Your task to perform on an android device: uninstall "LiveIn - Share Your Moment" Image 0: 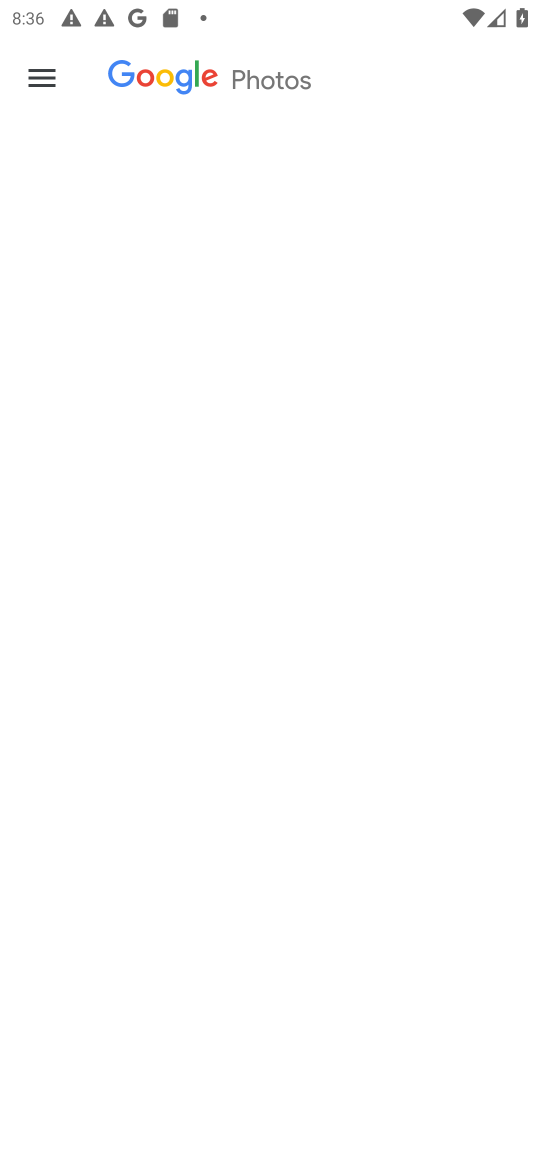
Step 0: press home button
Your task to perform on an android device: uninstall "LiveIn - Share Your Moment" Image 1: 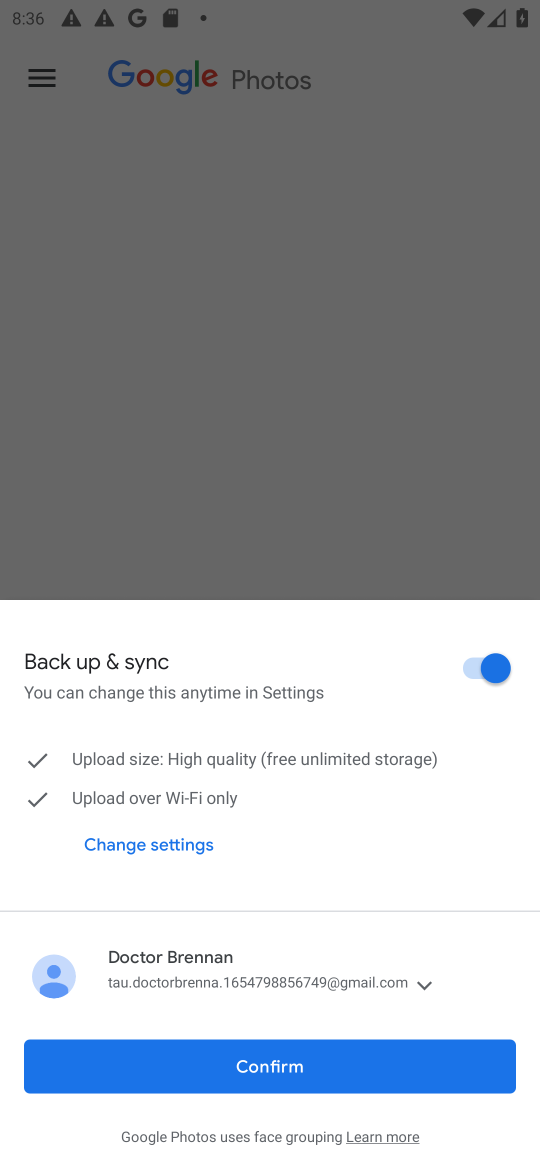
Step 1: press home button
Your task to perform on an android device: uninstall "LiveIn - Share Your Moment" Image 2: 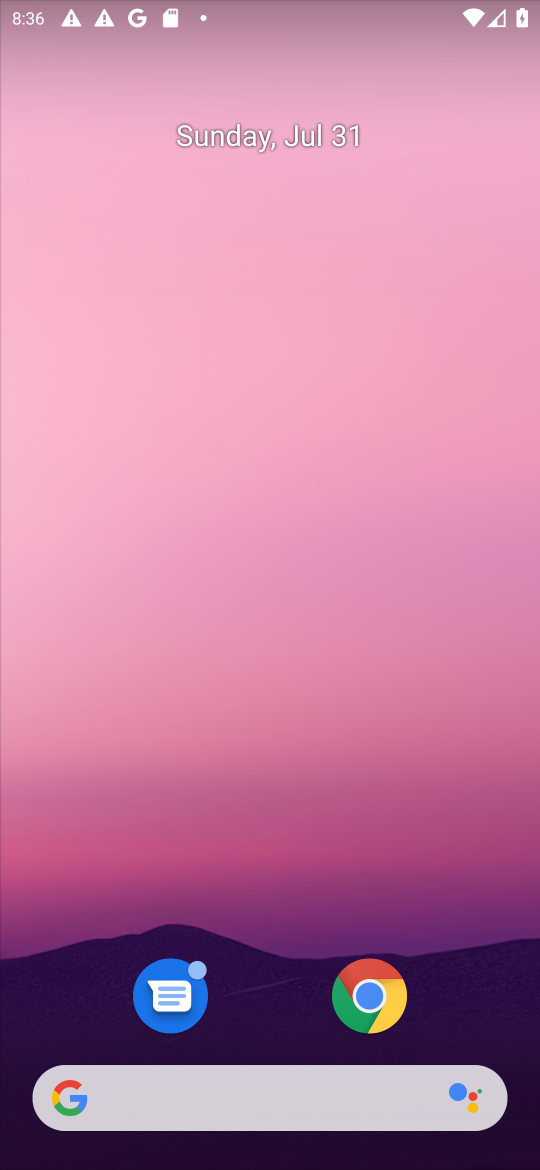
Step 2: drag from (465, 1000) to (415, 89)
Your task to perform on an android device: uninstall "LiveIn - Share Your Moment" Image 3: 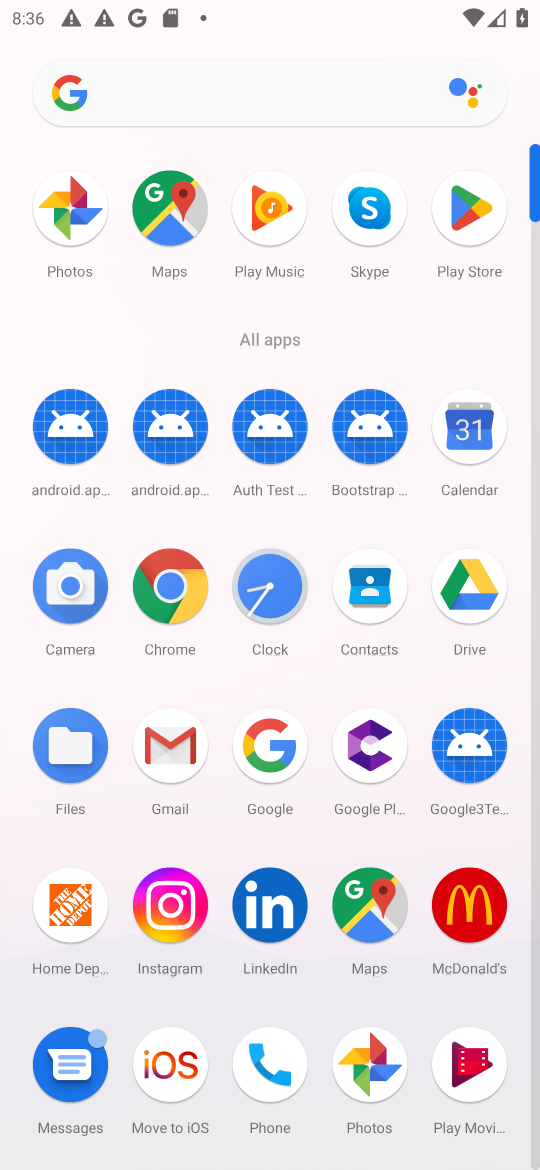
Step 3: click (477, 210)
Your task to perform on an android device: uninstall "LiveIn - Share Your Moment" Image 4: 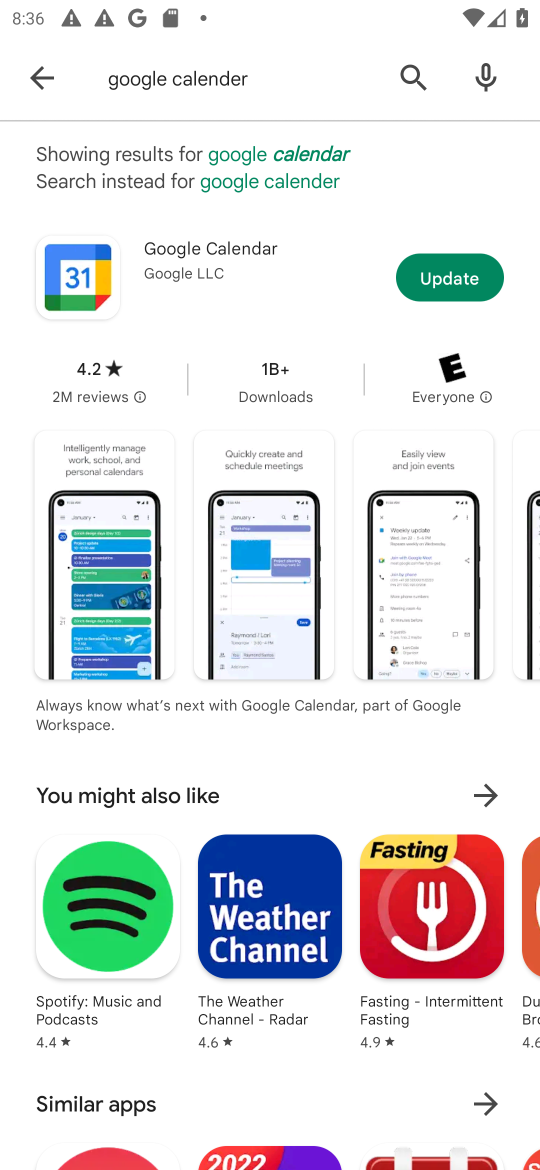
Step 4: click (401, 66)
Your task to perform on an android device: uninstall "LiveIn - Share Your Moment" Image 5: 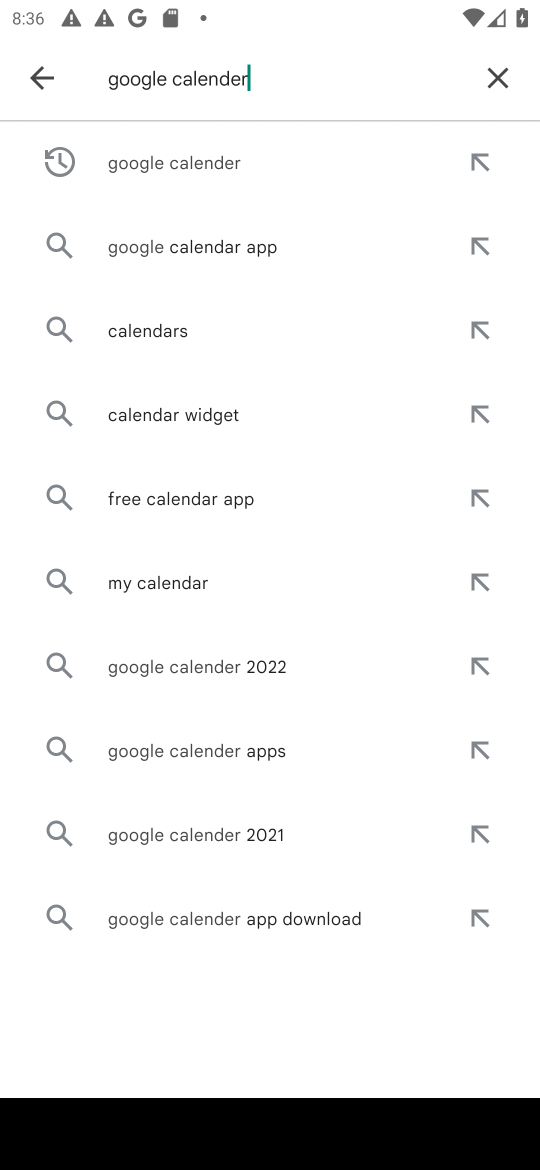
Step 5: click (498, 82)
Your task to perform on an android device: uninstall "LiveIn - Share Your Moment" Image 6: 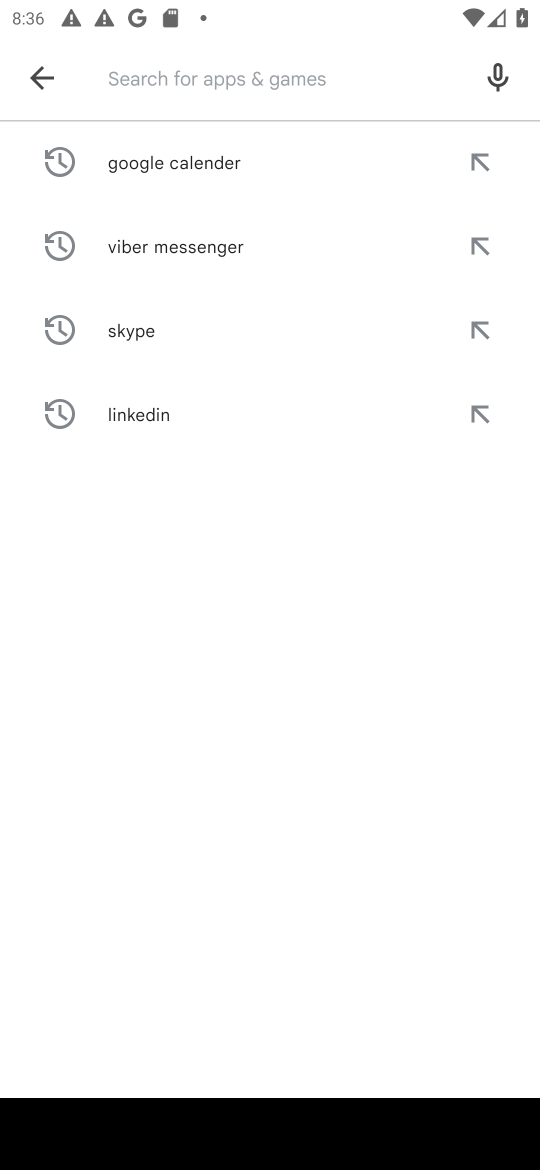
Step 6: type "share your moment"
Your task to perform on an android device: uninstall "LiveIn - Share Your Moment" Image 7: 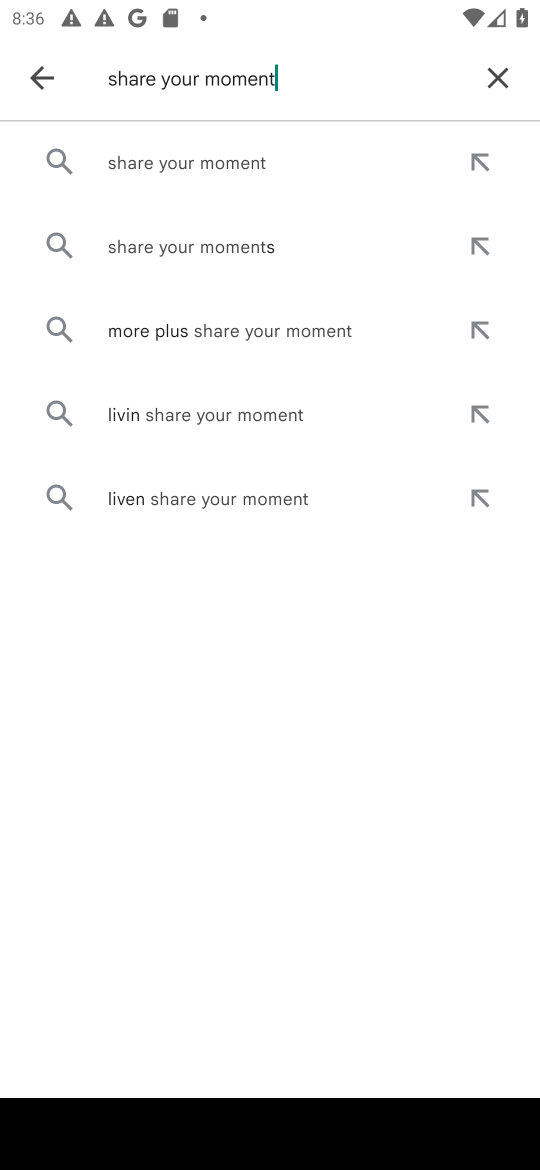
Step 7: click (220, 151)
Your task to perform on an android device: uninstall "LiveIn - Share Your Moment" Image 8: 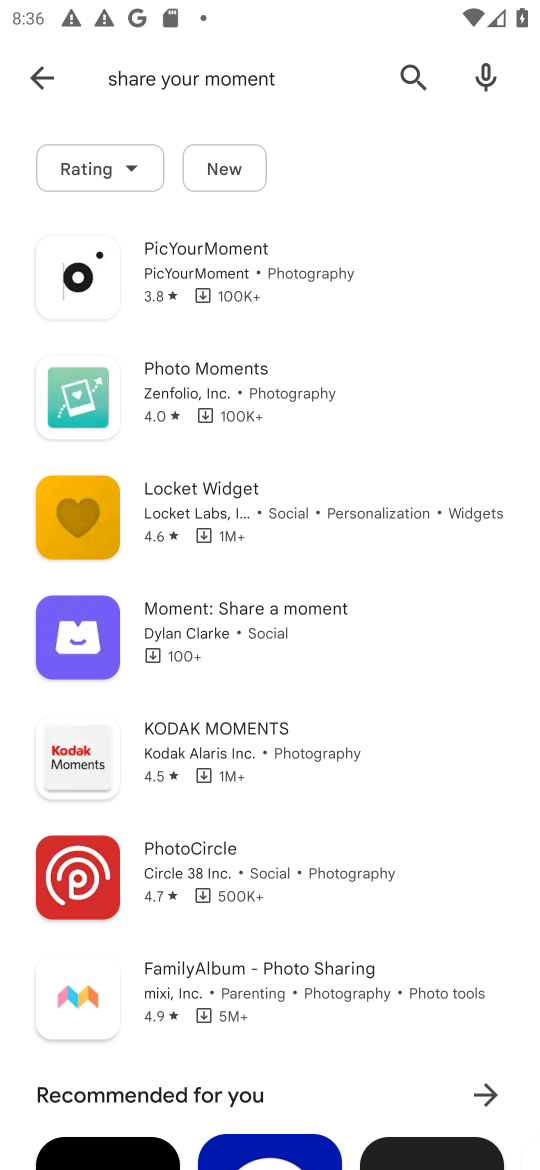
Step 8: task complete